Your task to perform on an android device: turn on sleep mode Image 0: 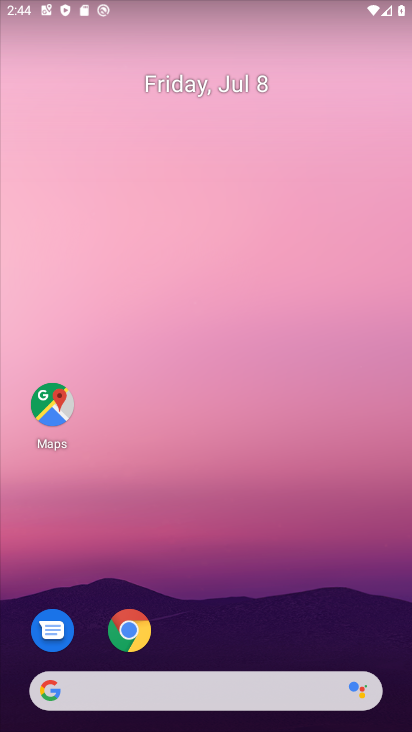
Step 0: drag from (288, 640) to (256, 113)
Your task to perform on an android device: turn on sleep mode Image 1: 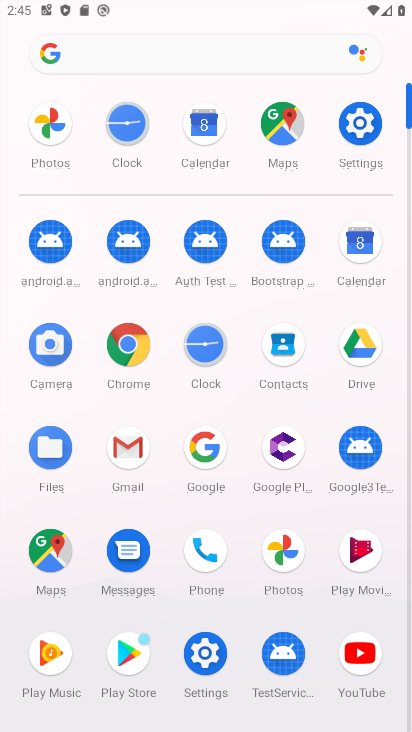
Step 1: click (342, 119)
Your task to perform on an android device: turn on sleep mode Image 2: 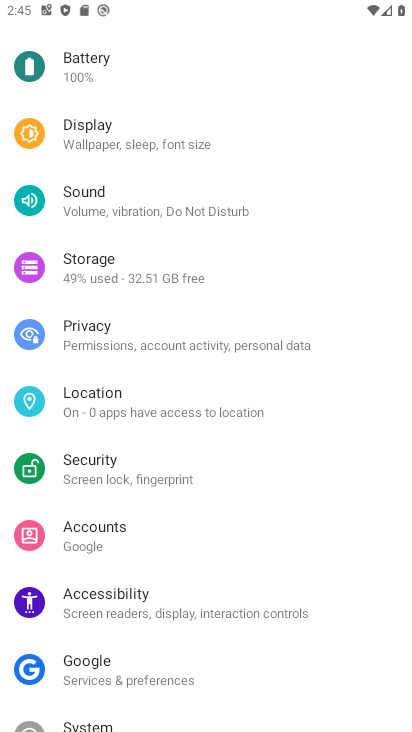
Step 2: drag from (138, 193) to (98, 632)
Your task to perform on an android device: turn on sleep mode Image 3: 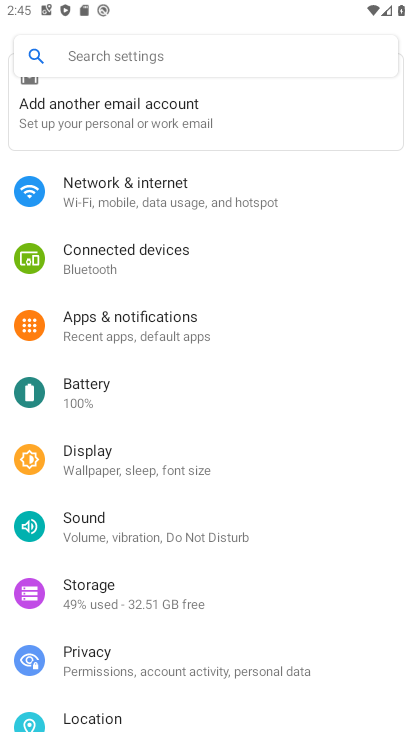
Step 3: click (143, 442)
Your task to perform on an android device: turn on sleep mode Image 4: 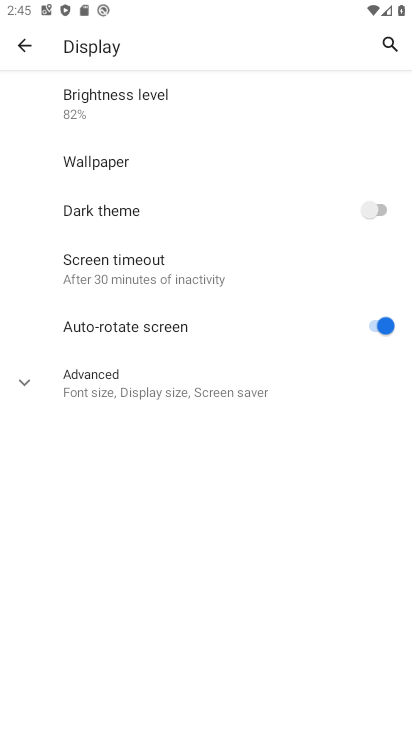
Step 4: click (75, 382)
Your task to perform on an android device: turn on sleep mode Image 5: 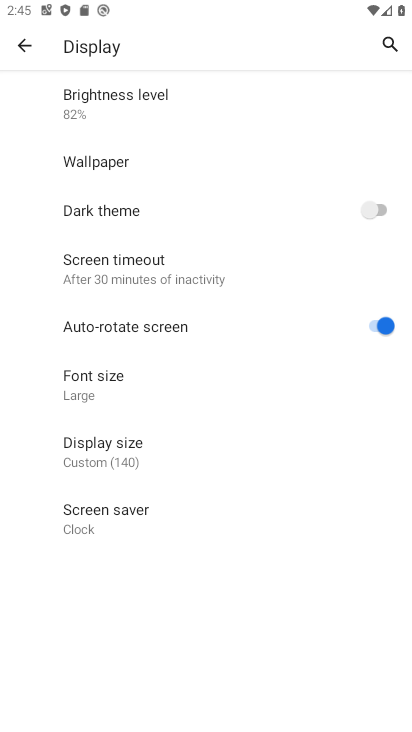
Step 5: click (129, 519)
Your task to perform on an android device: turn on sleep mode Image 6: 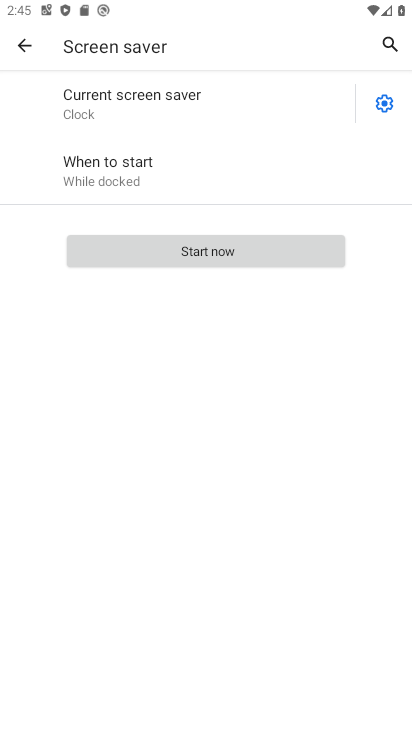
Step 6: click (26, 59)
Your task to perform on an android device: turn on sleep mode Image 7: 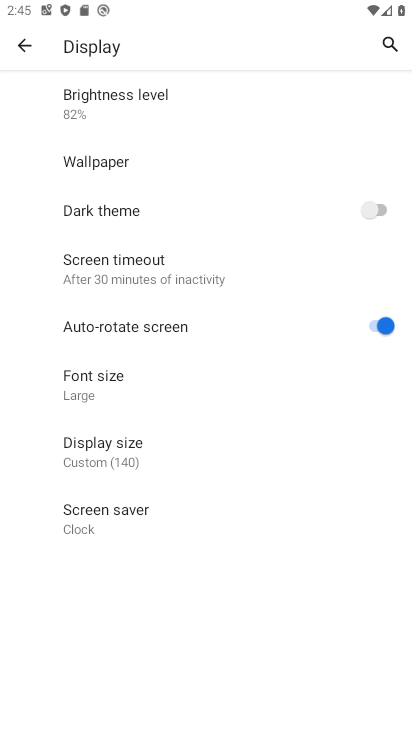
Step 7: click (90, 284)
Your task to perform on an android device: turn on sleep mode Image 8: 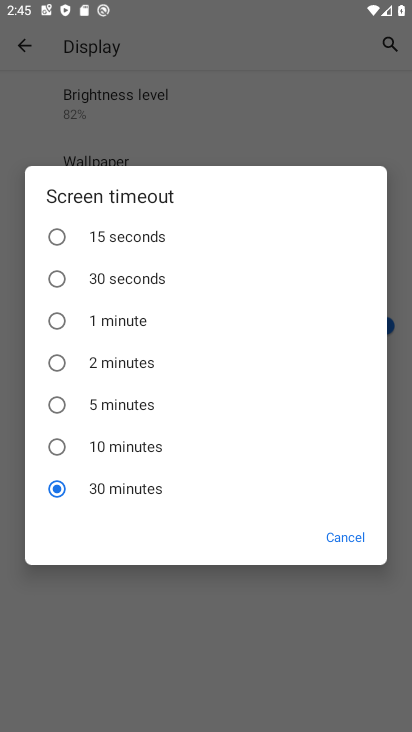
Step 8: click (82, 244)
Your task to perform on an android device: turn on sleep mode Image 9: 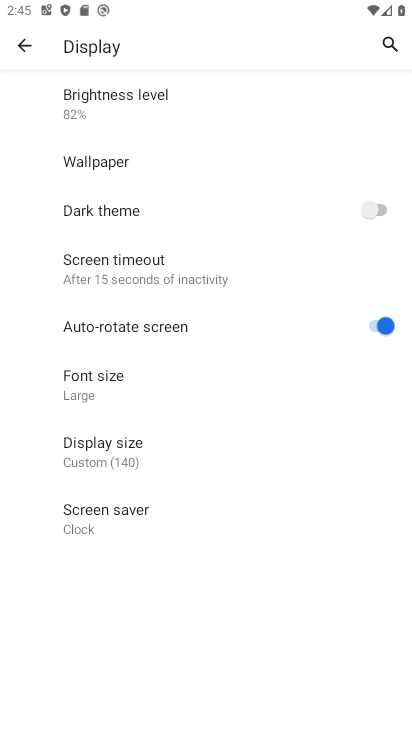
Step 9: task complete